Your task to perform on an android device: turn off smart reply in the gmail app Image 0: 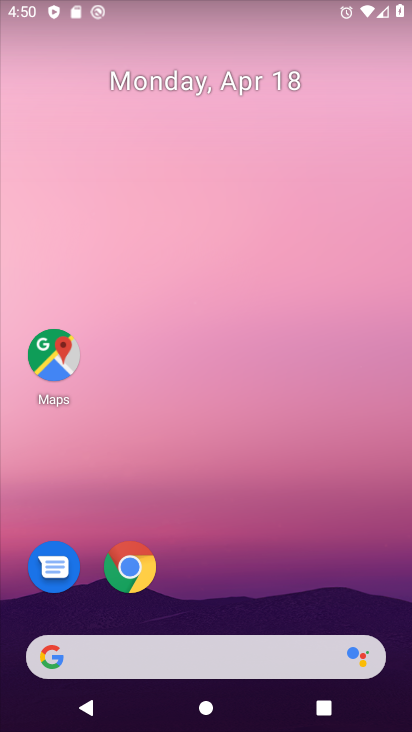
Step 0: drag from (230, 585) to (253, 49)
Your task to perform on an android device: turn off smart reply in the gmail app Image 1: 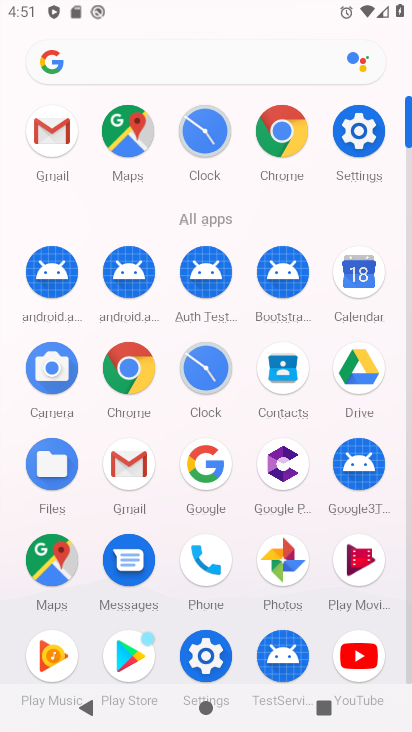
Step 1: click (47, 128)
Your task to perform on an android device: turn off smart reply in the gmail app Image 2: 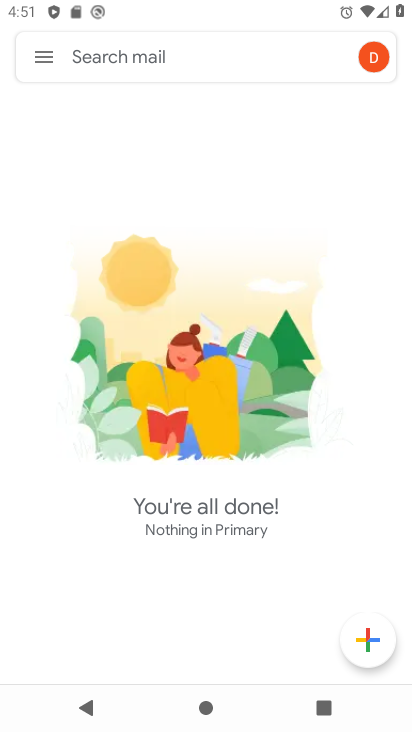
Step 2: click (45, 55)
Your task to perform on an android device: turn off smart reply in the gmail app Image 3: 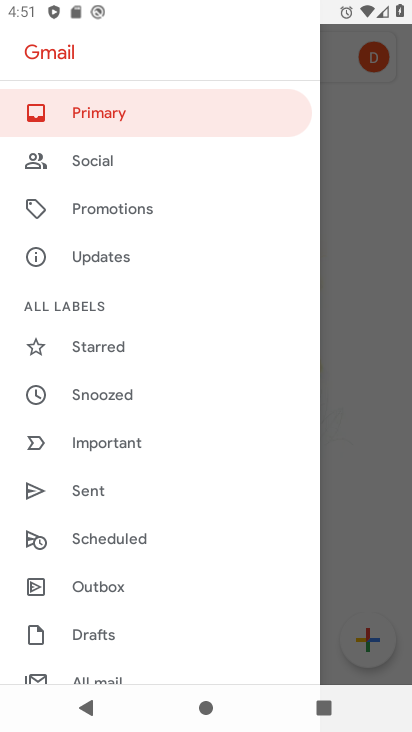
Step 3: drag from (136, 592) to (162, 429)
Your task to perform on an android device: turn off smart reply in the gmail app Image 4: 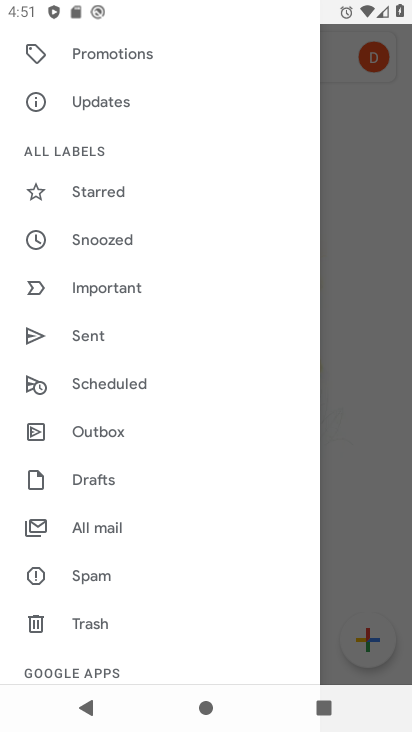
Step 4: drag from (116, 618) to (128, 524)
Your task to perform on an android device: turn off smart reply in the gmail app Image 5: 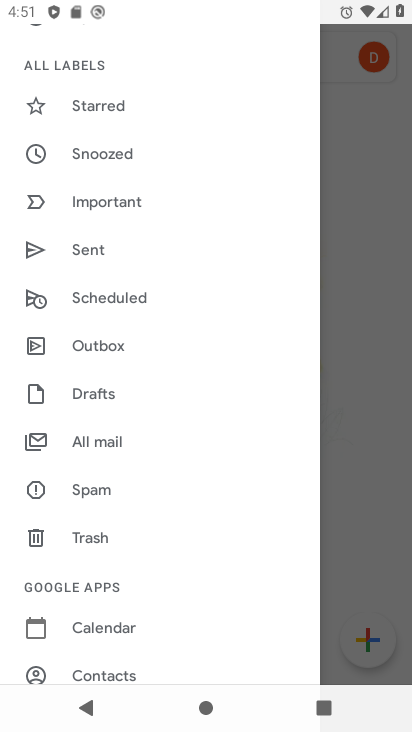
Step 5: drag from (143, 614) to (158, 478)
Your task to perform on an android device: turn off smart reply in the gmail app Image 6: 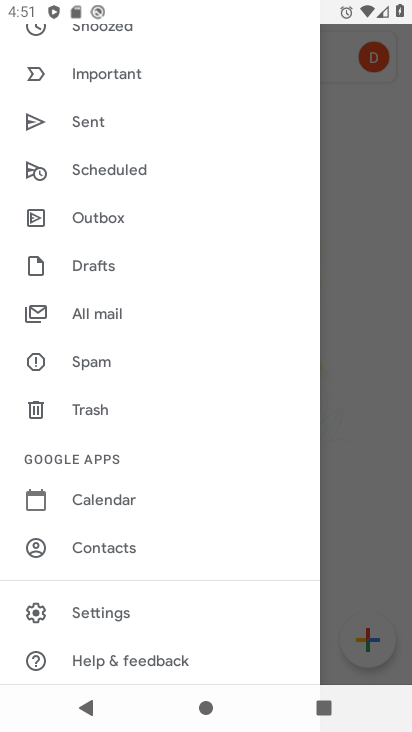
Step 6: click (125, 607)
Your task to perform on an android device: turn off smart reply in the gmail app Image 7: 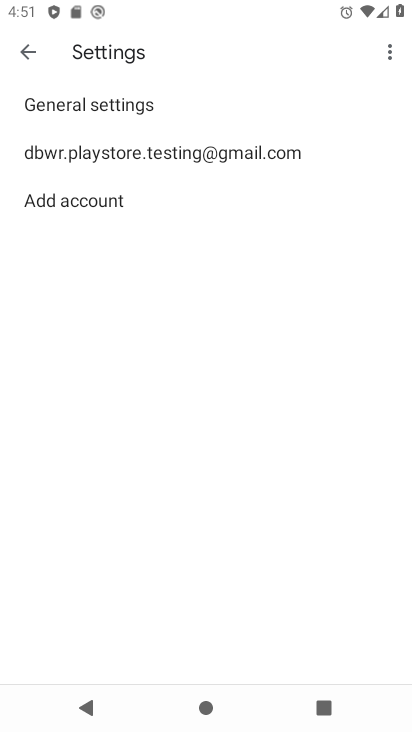
Step 7: click (198, 155)
Your task to perform on an android device: turn off smart reply in the gmail app Image 8: 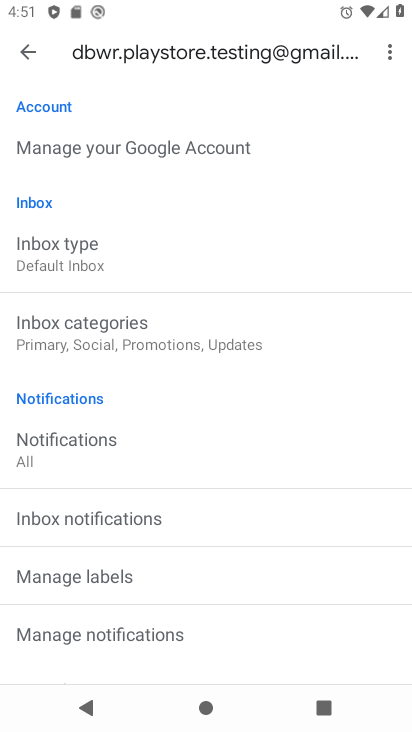
Step 8: drag from (145, 549) to (177, 411)
Your task to perform on an android device: turn off smart reply in the gmail app Image 9: 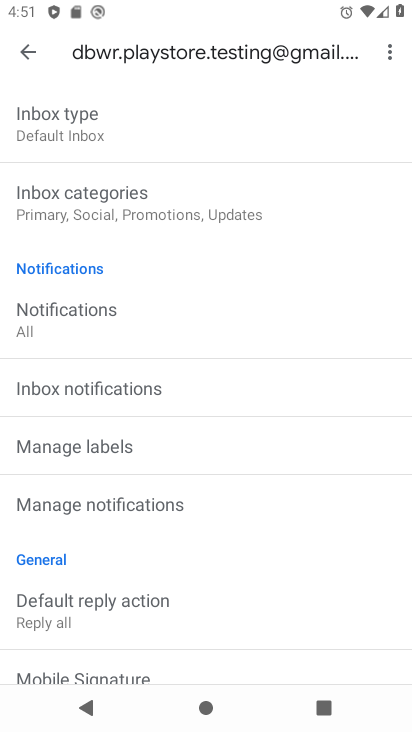
Step 9: drag from (159, 530) to (158, 406)
Your task to perform on an android device: turn off smart reply in the gmail app Image 10: 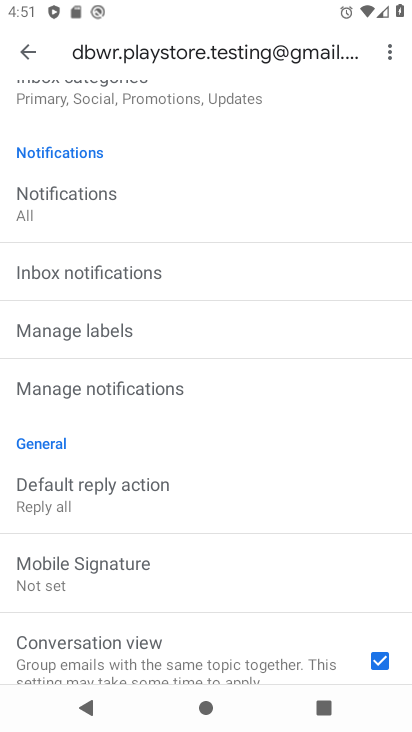
Step 10: drag from (165, 509) to (206, 405)
Your task to perform on an android device: turn off smart reply in the gmail app Image 11: 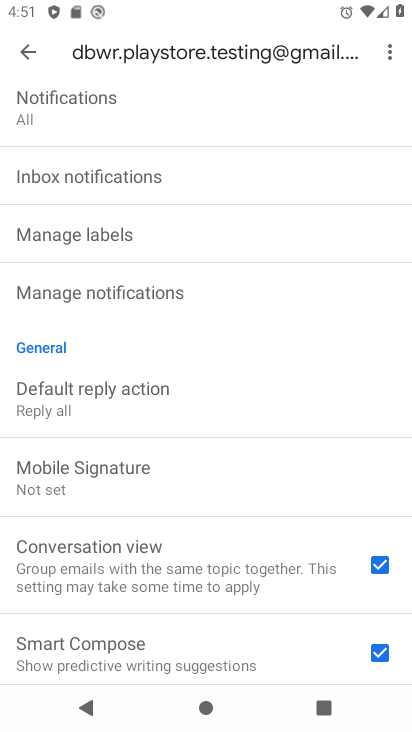
Step 11: drag from (202, 570) to (220, 474)
Your task to perform on an android device: turn off smart reply in the gmail app Image 12: 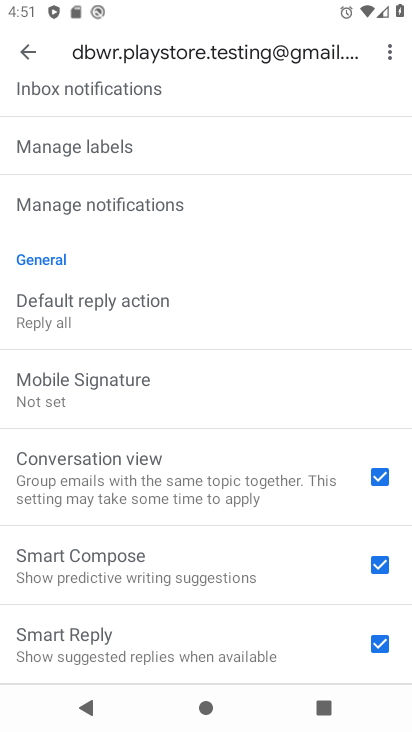
Step 12: drag from (205, 587) to (226, 487)
Your task to perform on an android device: turn off smart reply in the gmail app Image 13: 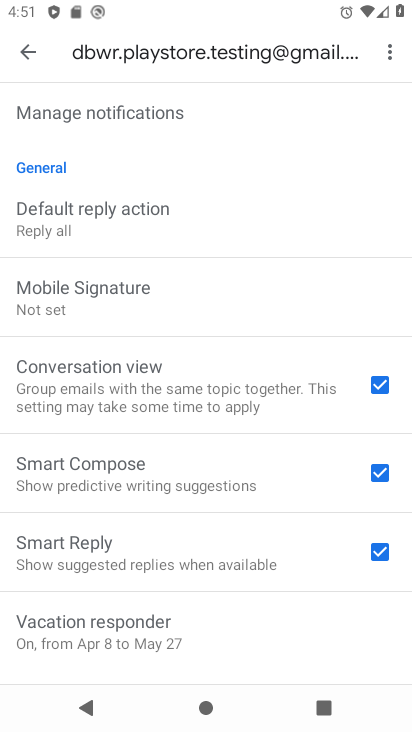
Step 13: click (380, 549)
Your task to perform on an android device: turn off smart reply in the gmail app Image 14: 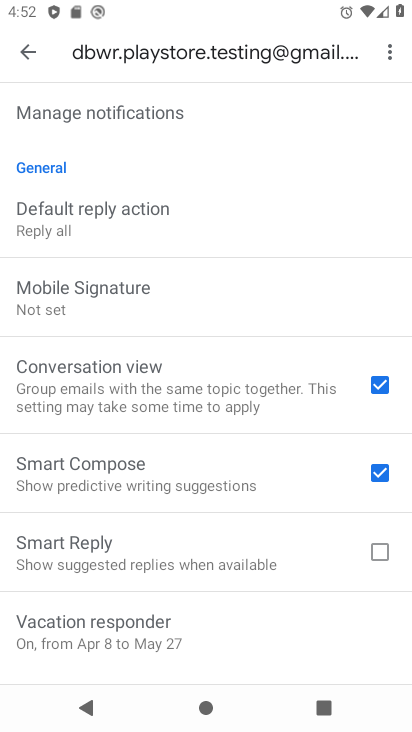
Step 14: task complete